Your task to perform on an android device: Go to settings Image 0: 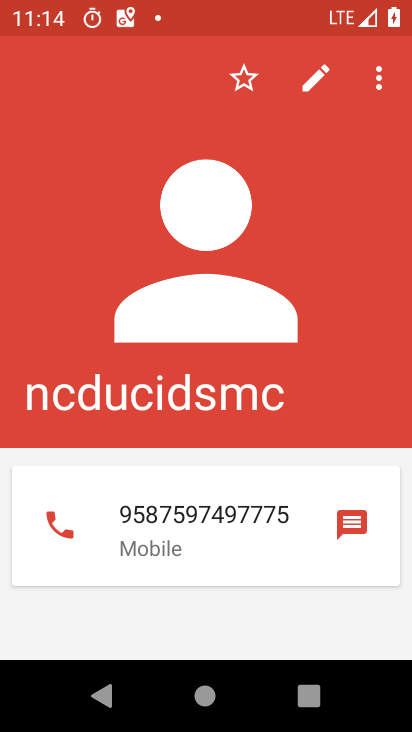
Step 0: press home button
Your task to perform on an android device: Go to settings Image 1: 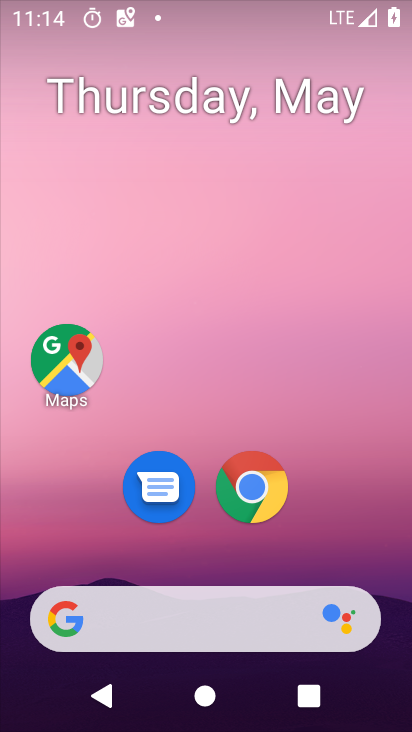
Step 1: drag from (100, 653) to (409, 36)
Your task to perform on an android device: Go to settings Image 2: 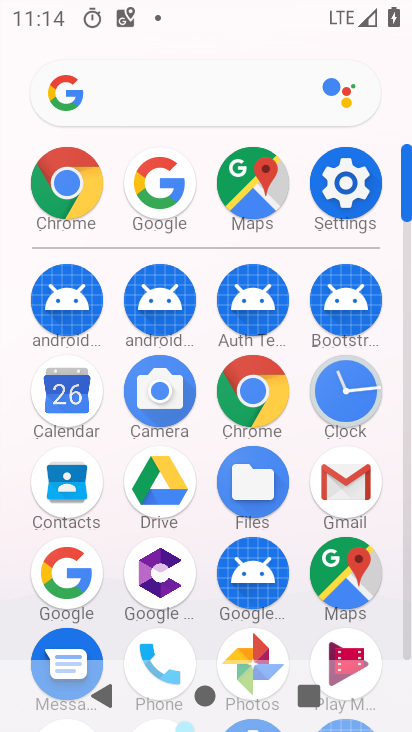
Step 2: click (350, 206)
Your task to perform on an android device: Go to settings Image 3: 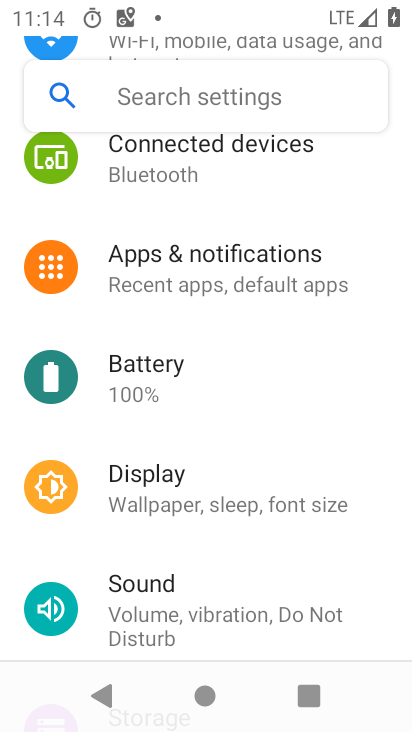
Step 3: task complete